Your task to perform on an android device: toggle data saver in the chrome app Image 0: 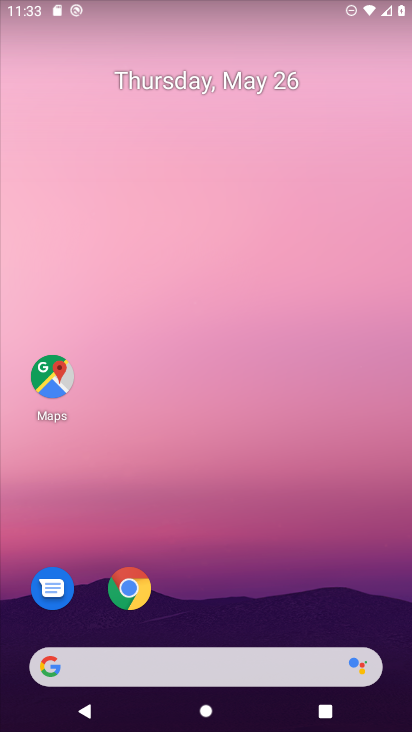
Step 0: click (130, 590)
Your task to perform on an android device: toggle data saver in the chrome app Image 1: 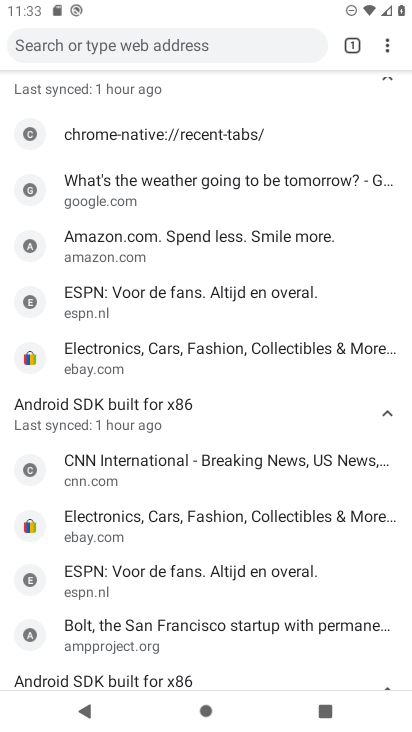
Step 1: click (384, 53)
Your task to perform on an android device: toggle data saver in the chrome app Image 2: 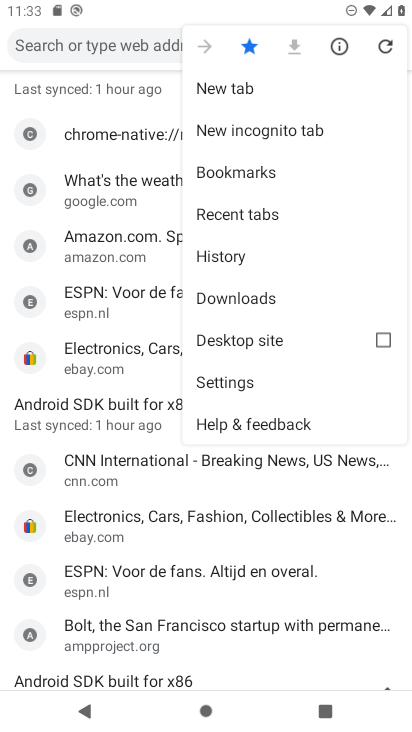
Step 2: click (223, 382)
Your task to perform on an android device: toggle data saver in the chrome app Image 3: 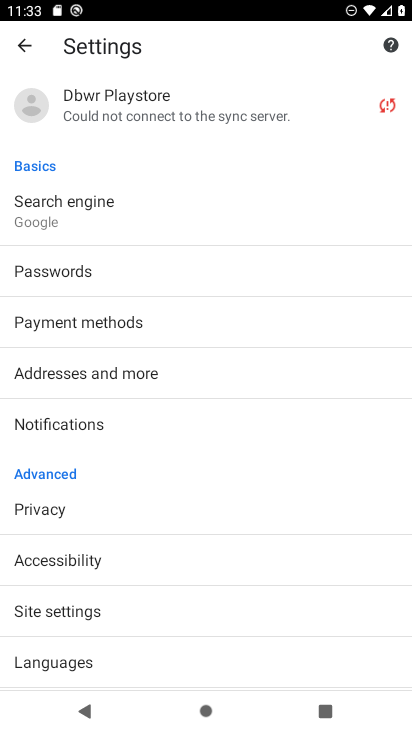
Step 3: drag from (170, 623) to (167, 246)
Your task to perform on an android device: toggle data saver in the chrome app Image 4: 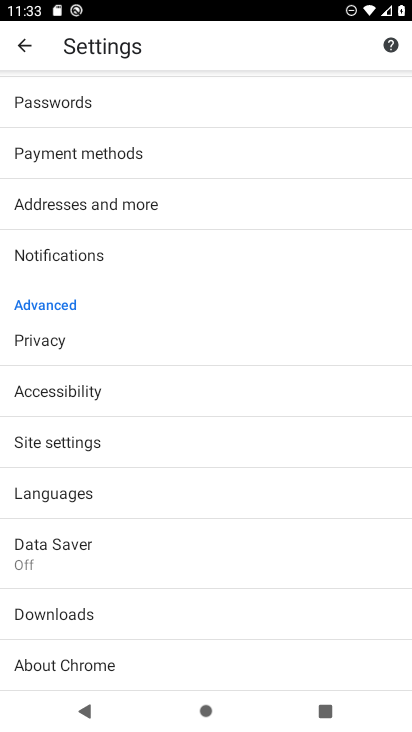
Step 4: click (53, 554)
Your task to perform on an android device: toggle data saver in the chrome app Image 5: 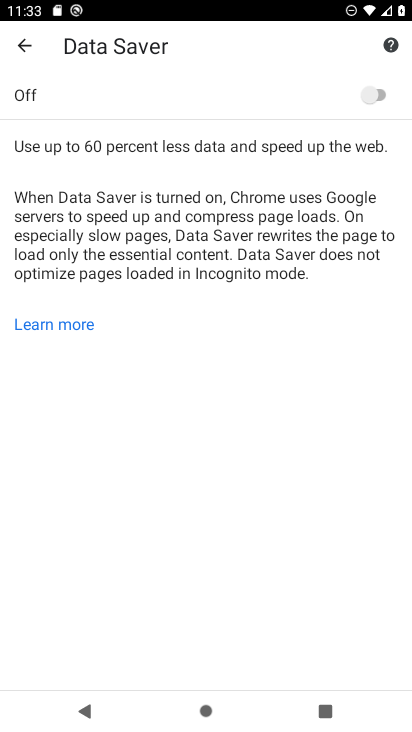
Step 5: click (382, 95)
Your task to perform on an android device: toggle data saver in the chrome app Image 6: 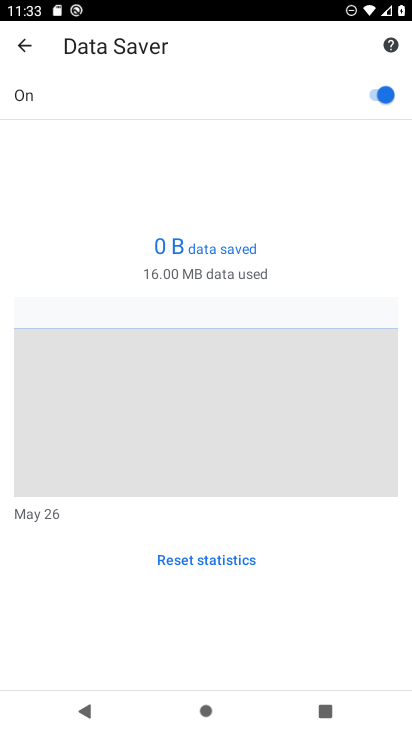
Step 6: task complete